Your task to perform on an android device: delete a single message in the gmail app Image 0: 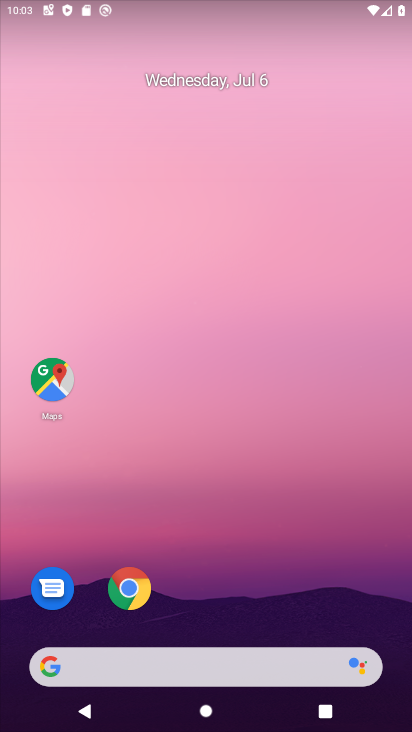
Step 0: drag from (281, 586) to (262, 231)
Your task to perform on an android device: delete a single message in the gmail app Image 1: 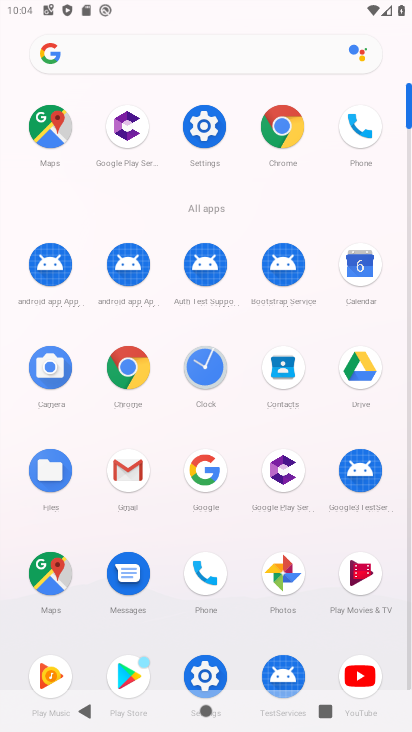
Step 1: click (119, 473)
Your task to perform on an android device: delete a single message in the gmail app Image 2: 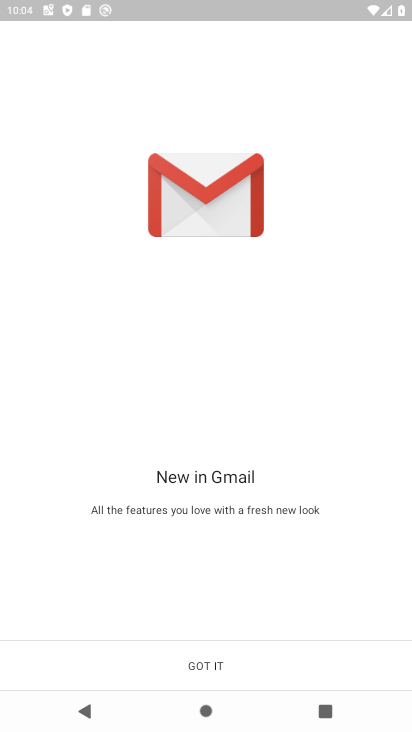
Step 2: click (215, 665)
Your task to perform on an android device: delete a single message in the gmail app Image 3: 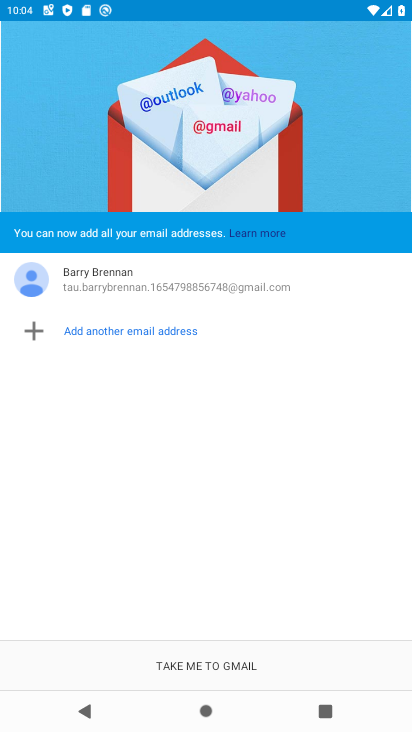
Step 3: drag from (215, 665) to (213, 543)
Your task to perform on an android device: delete a single message in the gmail app Image 4: 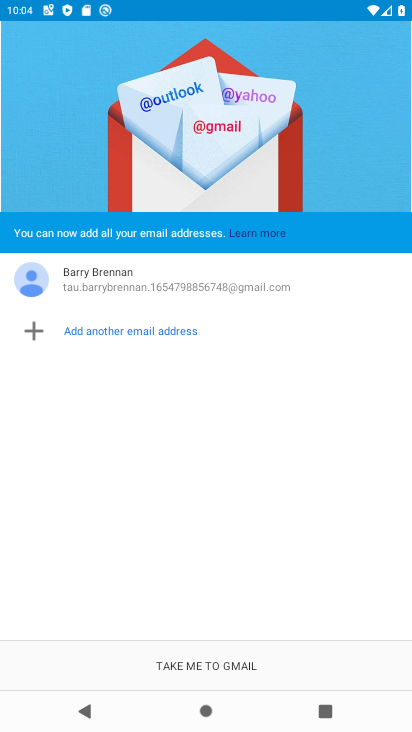
Step 4: click (222, 669)
Your task to perform on an android device: delete a single message in the gmail app Image 5: 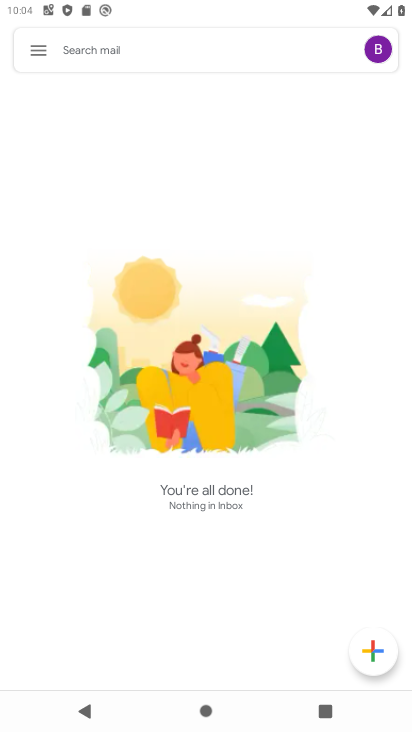
Step 5: task complete